Your task to perform on an android device: Go to wifi settings Image 0: 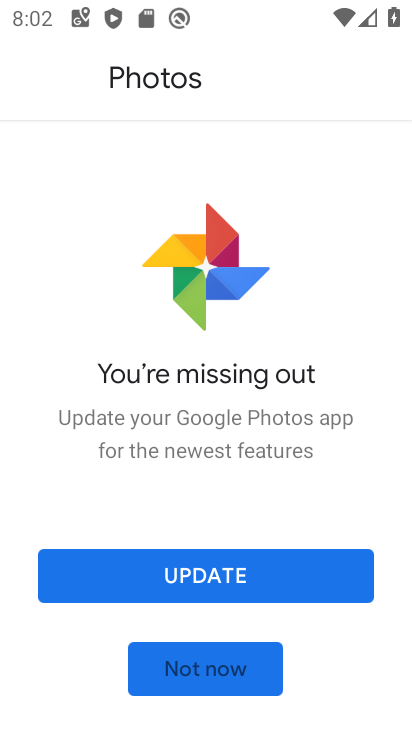
Step 0: press home button
Your task to perform on an android device: Go to wifi settings Image 1: 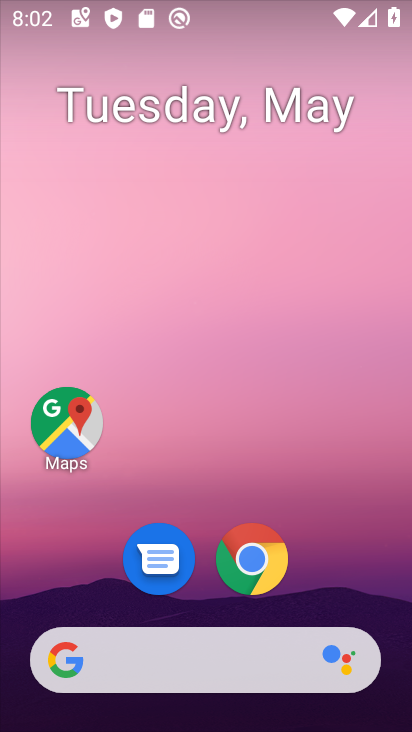
Step 1: drag from (405, 474) to (390, 22)
Your task to perform on an android device: Go to wifi settings Image 2: 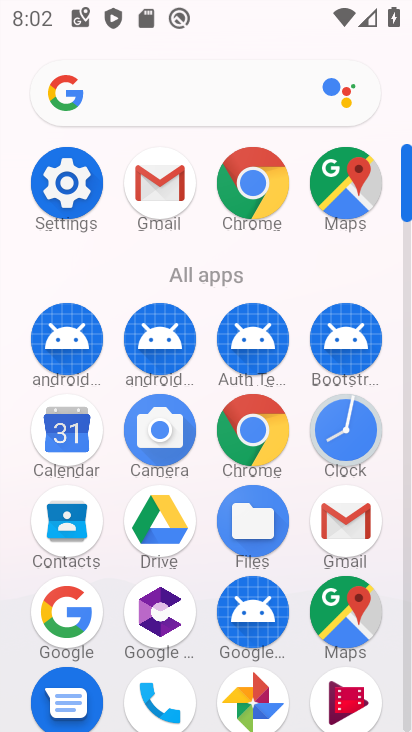
Step 2: click (77, 167)
Your task to perform on an android device: Go to wifi settings Image 3: 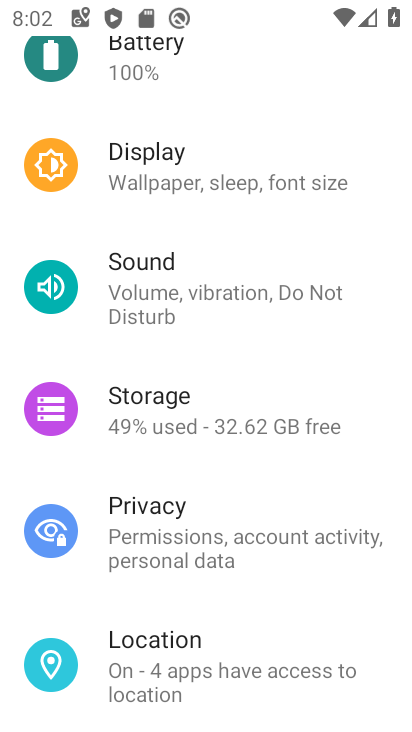
Step 3: drag from (235, 162) to (257, 533)
Your task to perform on an android device: Go to wifi settings Image 4: 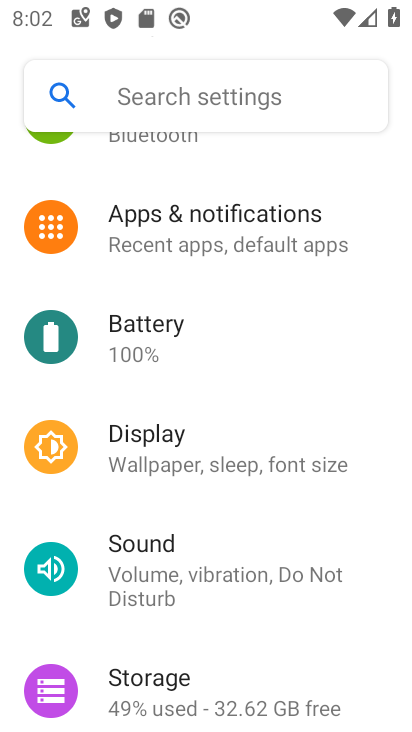
Step 4: drag from (177, 170) to (151, 594)
Your task to perform on an android device: Go to wifi settings Image 5: 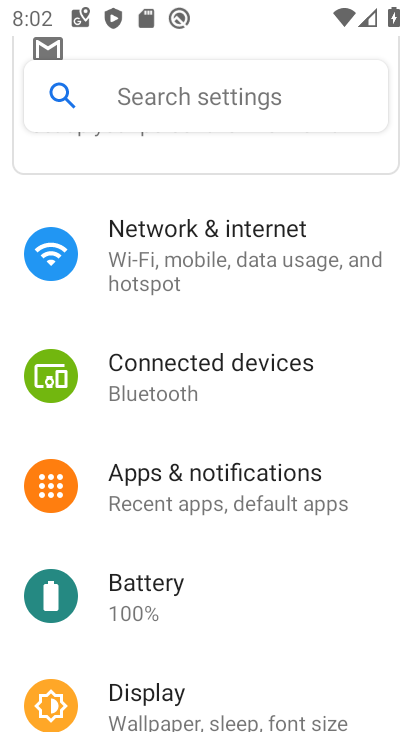
Step 5: click (88, 260)
Your task to perform on an android device: Go to wifi settings Image 6: 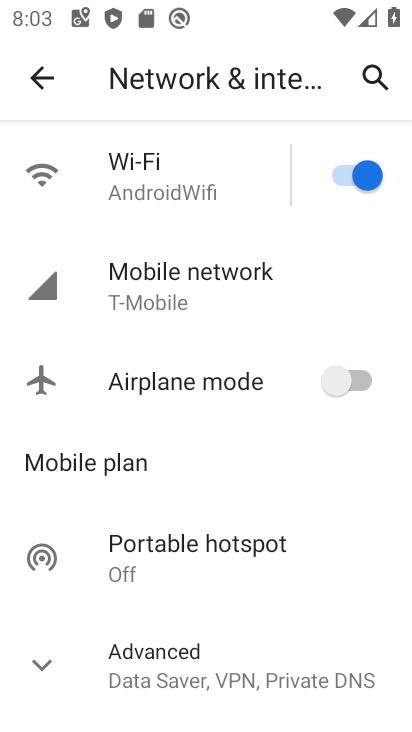
Step 6: click (98, 190)
Your task to perform on an android device: Go to wifi settings Image 7: 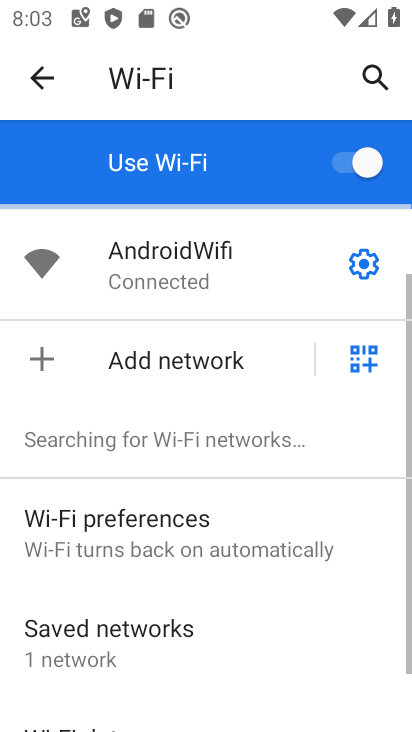
Step 7: task complete